Your task to perform on an android device: Open Google Image 0: 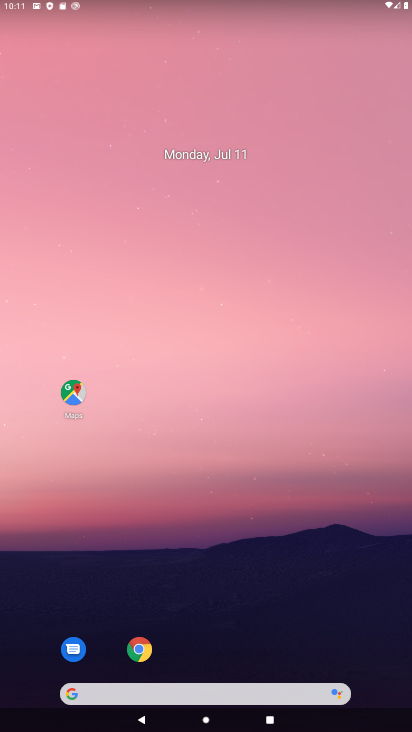
Step 0: drag from (237, 664) to (278, 62)
Your task to perform on an android device: Open Google Image 1: 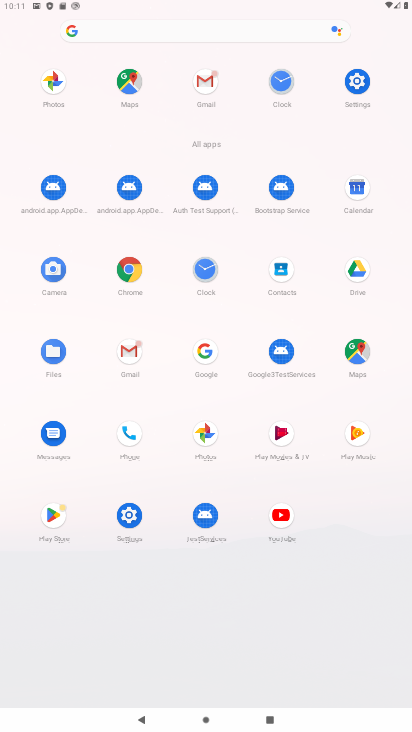
Step 1: click (208, 351)
Your task to perform on an android device: Open Google Image 2: 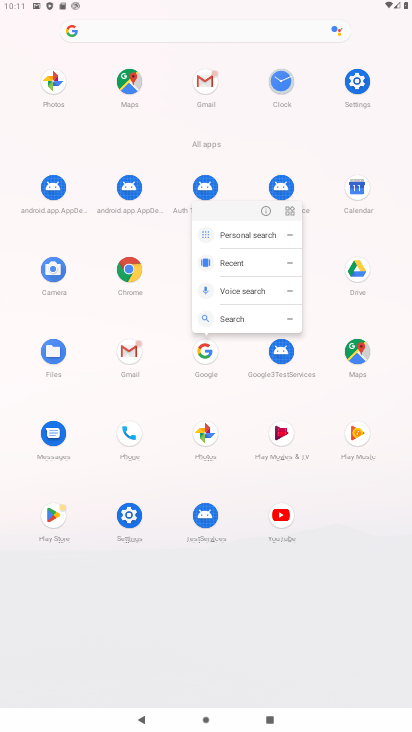
Step 2: click (206, 360)
Your task to perform on an android device: Open Google Image 3: 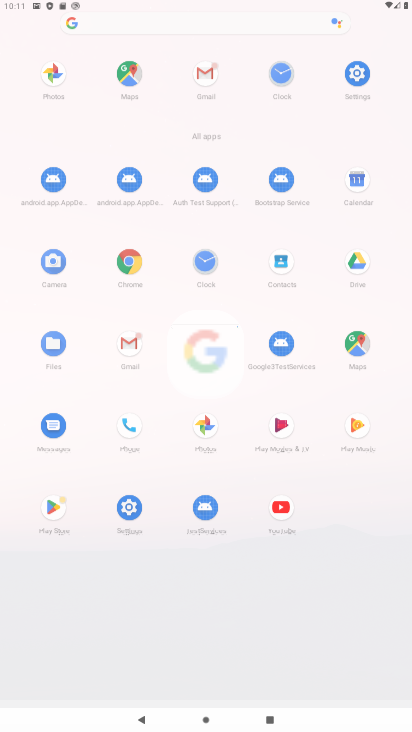
Step 3: click (203, 358)
Your task to perform on an android device: Open Google Image 4: 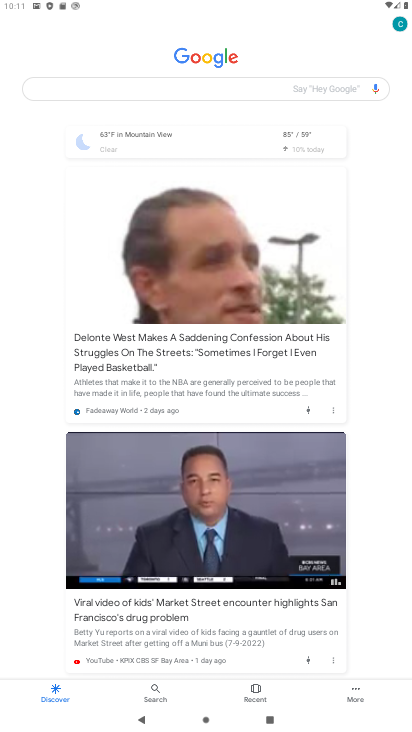
Step 4: task complete